Your task to perform on an android device: Open the calendar and show me this week's events Image 0: 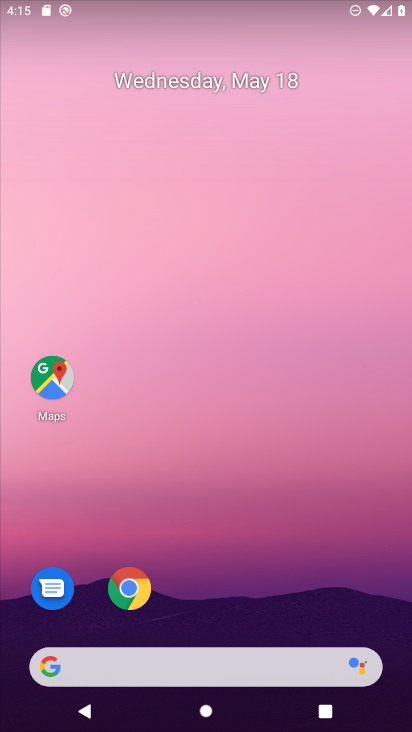
Step 0: drag from (285, 618) to (339, 25)
Your task to perform on an android device: Open the calendar and show me this week's events Image 1: 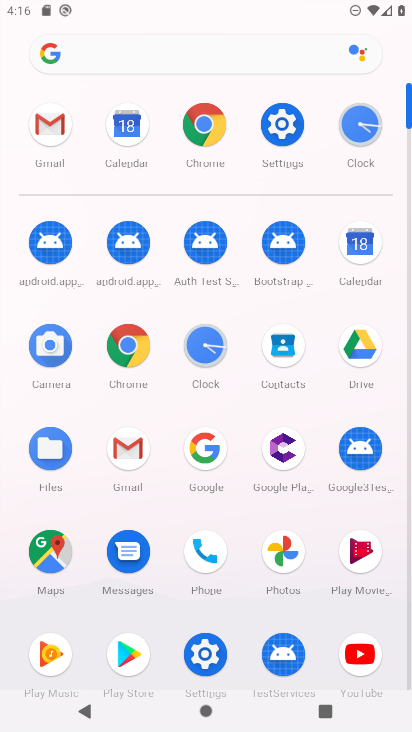
Step 1: click (361, 253)
Your task to perform on an android device: Open the calendar and show me this week's events Image 2: 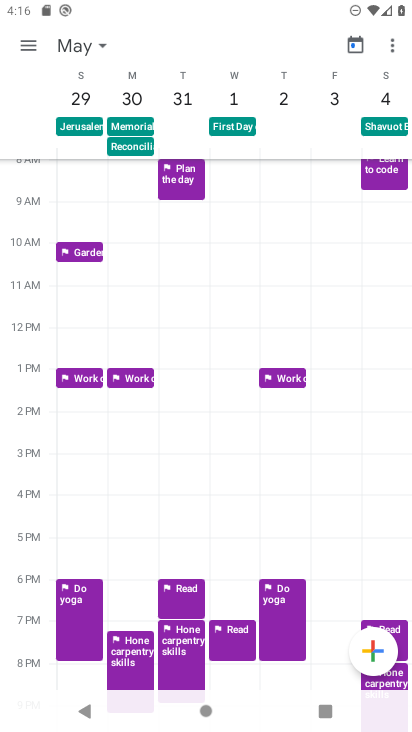
Step 2: task complete